Your task to perform on an android device: Open Google Chrome and open the bookmarks view Image 0: 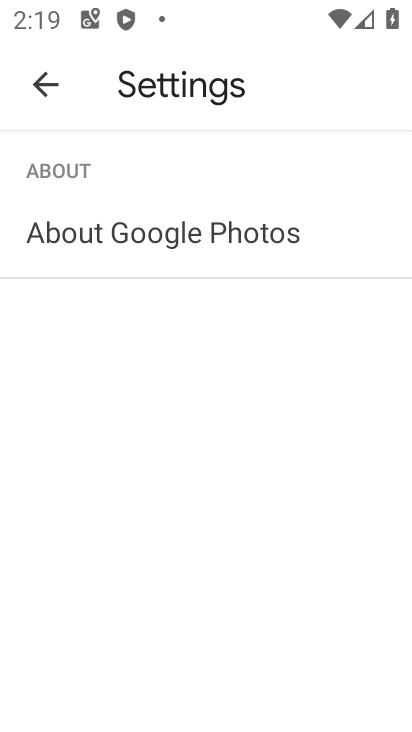
Step 0: press home button
Your task to perform on an android device: Open Google Chrome and open the bookmarks view Image 1: 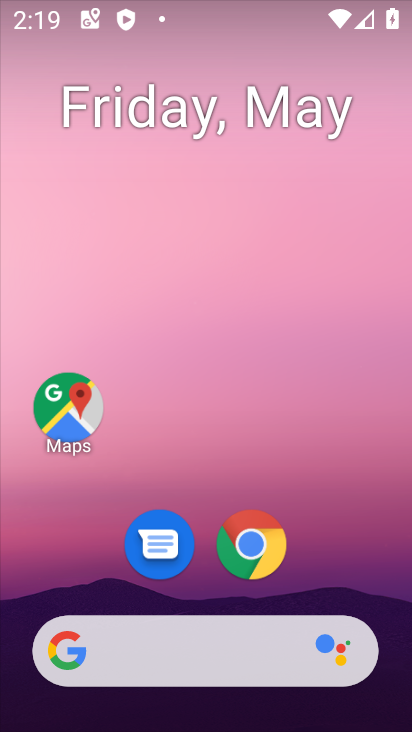
Step 1: click (260, 569)
Your task to perform on an android device: Open Google Chrome and open the bookmarks view Image 2: 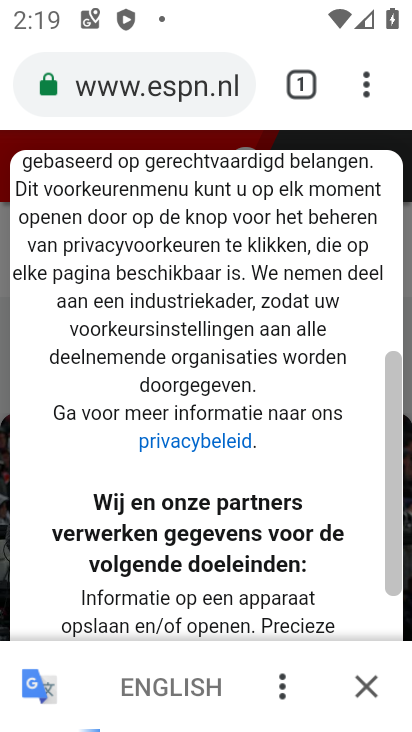
Step 2: task complete